Your task to perform on an android device: Open privacy settings Image 0: 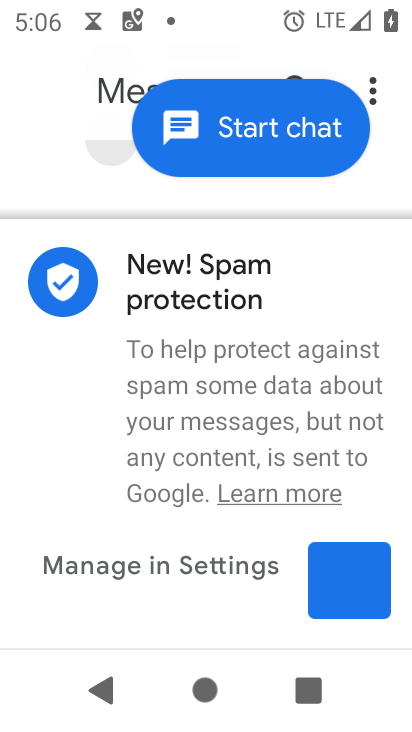
Step 0: press home button
Your task to perform on an android device: Open privacy settings Image 1: 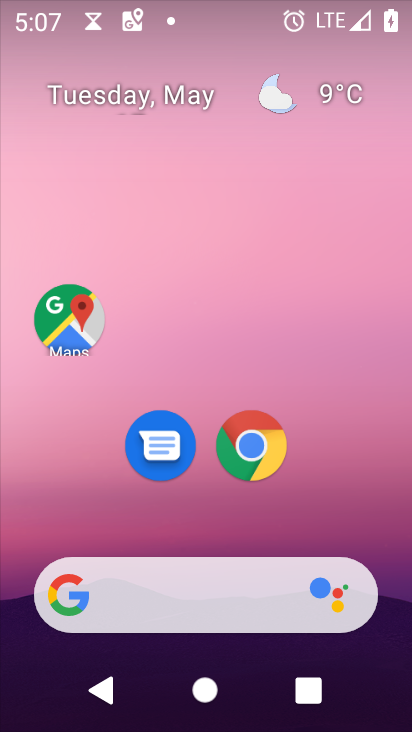
Step 1: drag from (298, 571) to (320, 3)
Your task to perform on an android device: Open privacy settings Image 2: 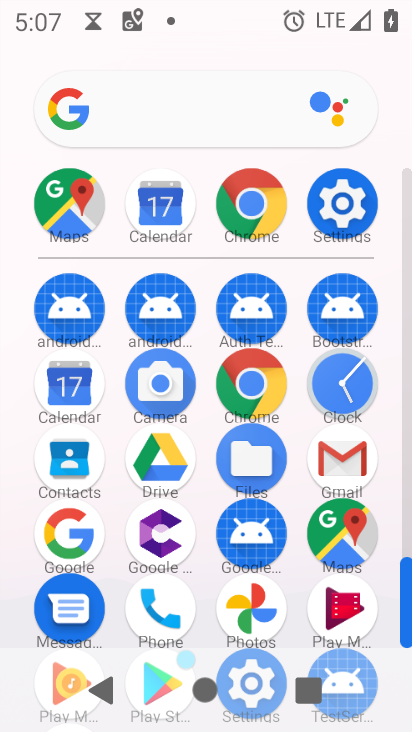
Step 2: click (345, 214)
Your task to perform on an android device: Open privacy settings Image 3: 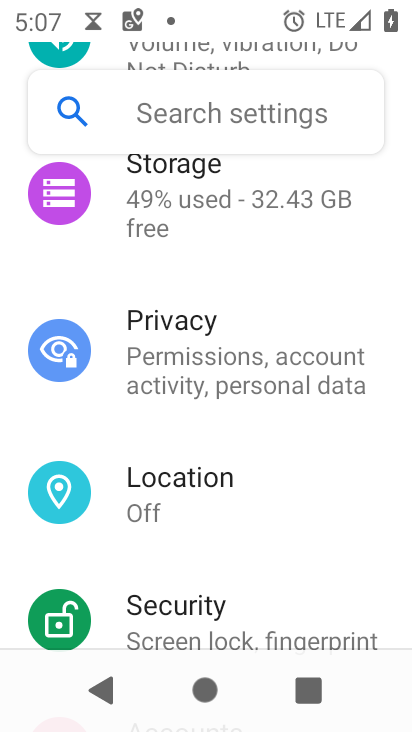
Step 3: click (231, 367)
Your task to perform on an android device: Open privacy settings Image 4: 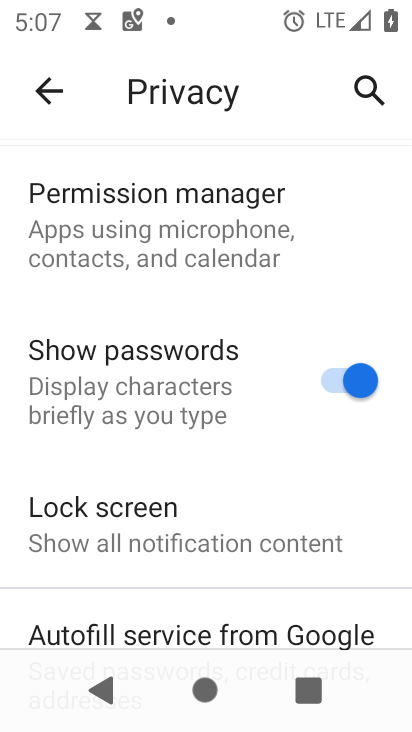
Step 4: task complete